Your task to perform on an android device: turn on translation in the chrome app Image 0: 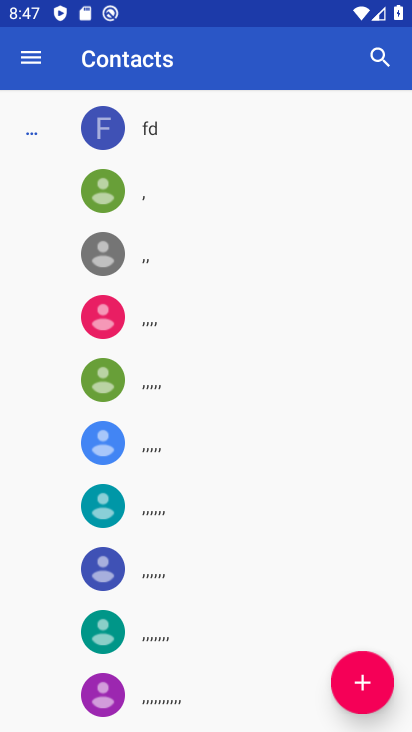
Step 0: press home button
Your task to perform on an android device: turn on translation in the chrome app Image 1: 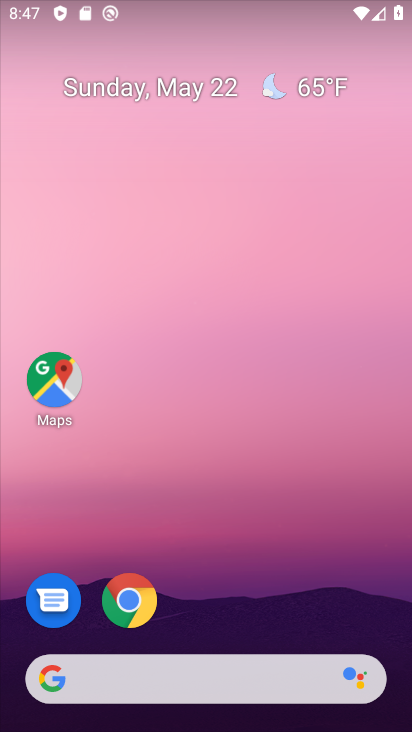
Step 1: click (138, 604)
Your task to perform on an android device: turn on translation in the chrome app Image 2: 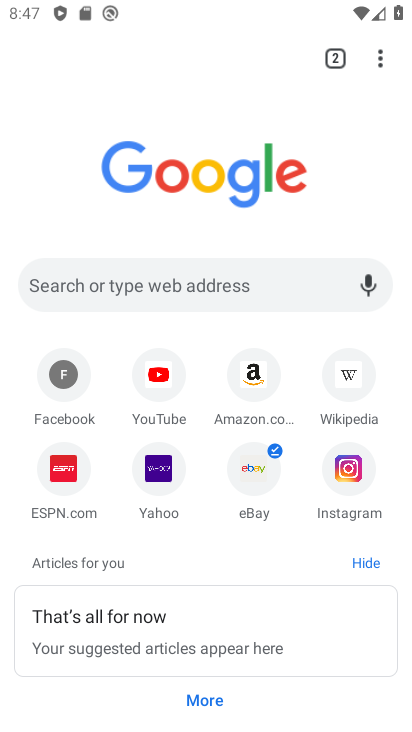
Step 2: click (386, 61)
Your task to perform on an android device: turn on translation in the chrome app Image 3: 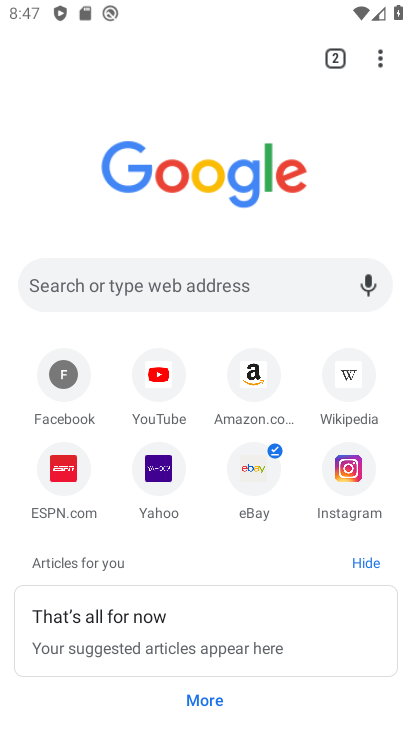
Step 3: click (378, 57)
Your task to perform on an android device: turn on translation in the chrome app Image 4: 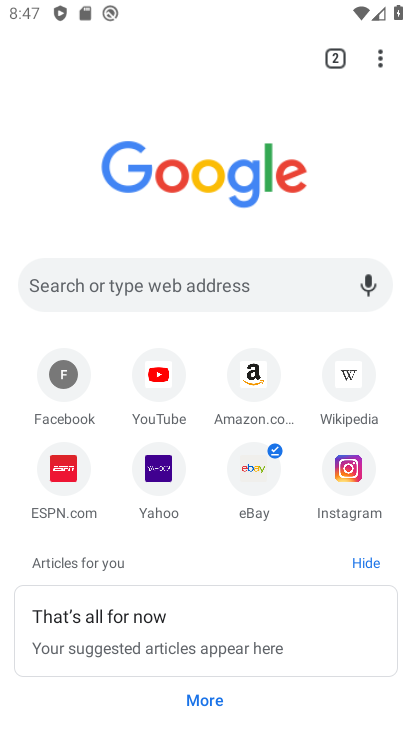
Step 4: click (379, 57)
Your task to perform on an android device: turn on translation in the chrome app Image 5: 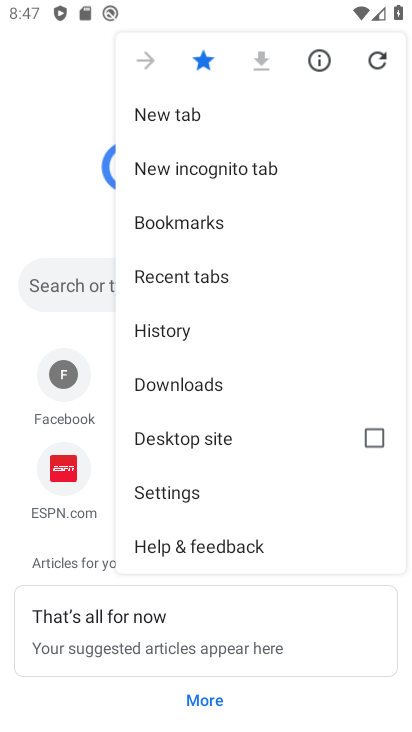
Step 5: click (186, 497)
Your task to perform on an android device: turn on translation in the chrome app Image 6: 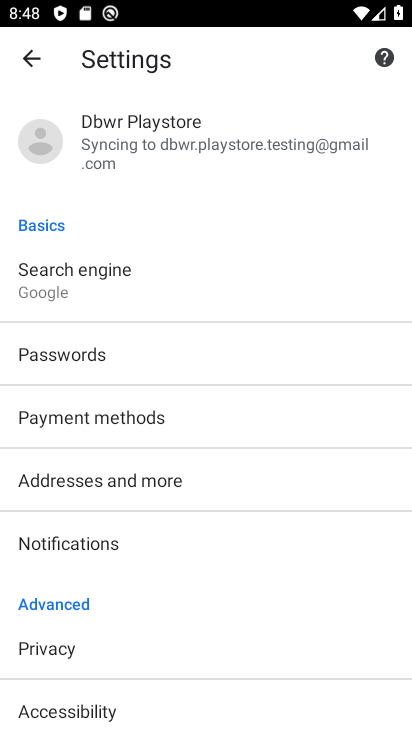
Step 6: drag from (96, 669) to (135, 205)
Your task to perform on an android device: turn on translation in the chrome app Image 7: 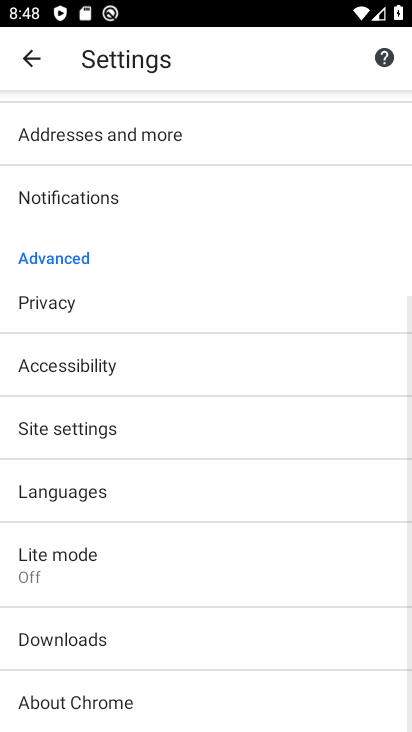
Step 7: click (97, 505)
Your task to perform on an android device: turn on translation in the chrome app Image 8: 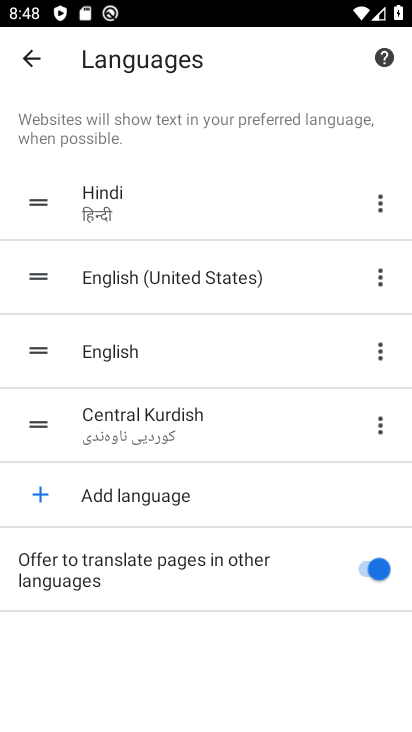
Step 8: click (367, 566)
Your task to perform on an android device: turn on translation in the chrome app Image 9: 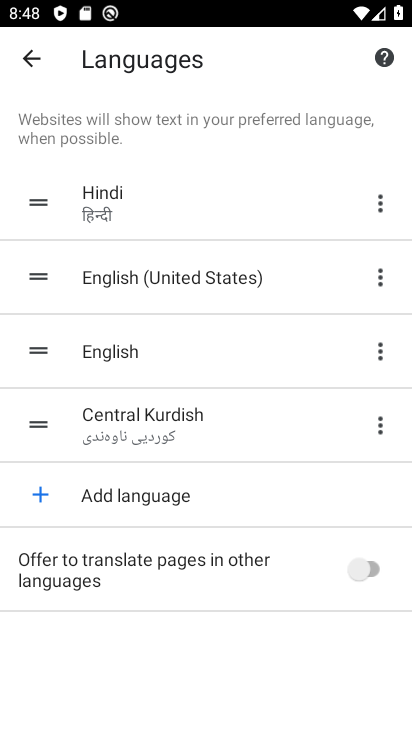
Step 9: click (380, 572)
Your task to perform on an android device: turn on translation in the chrome app Image 10: 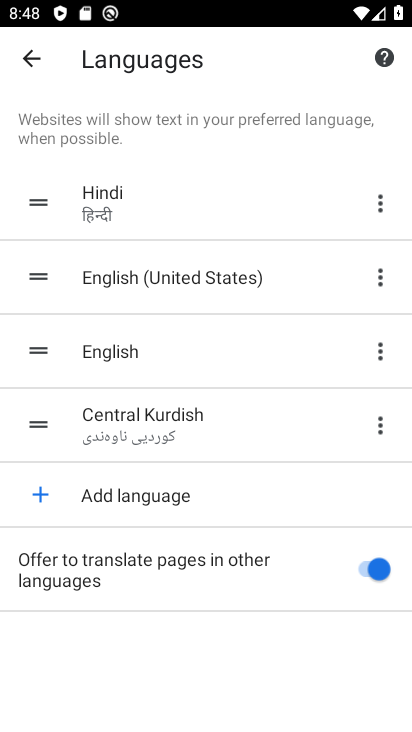
Step 10: task complete